Your task to perform on an android device: Go to CNN.com Image 0: 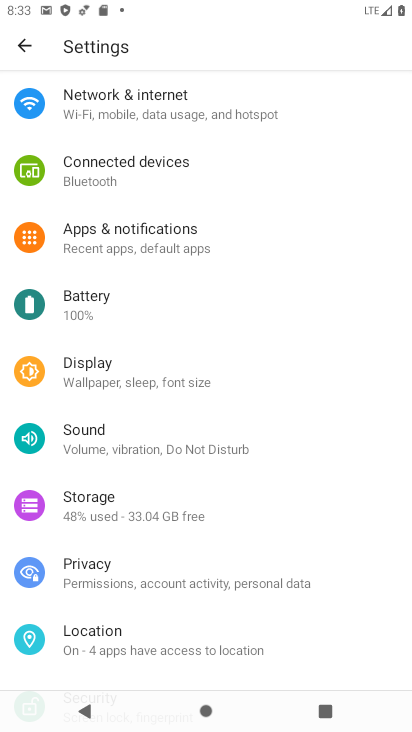
Step 0: press home button
Your task to perform on an android device: Go to CNN.com Image 1: 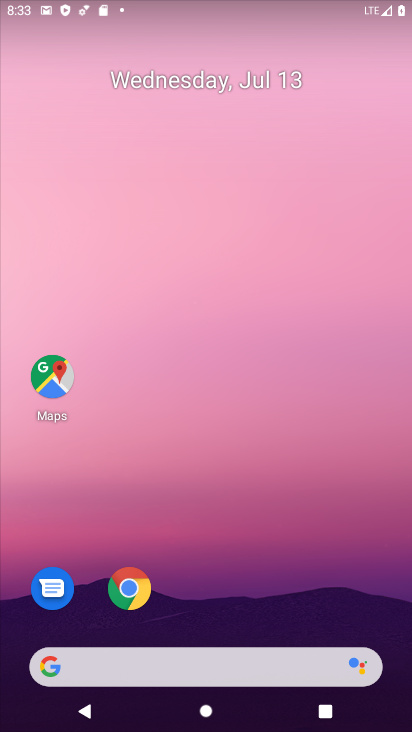
Step 1: click (142, 583)
Your task to perform on an android device: Go to CNN.com Image 2: 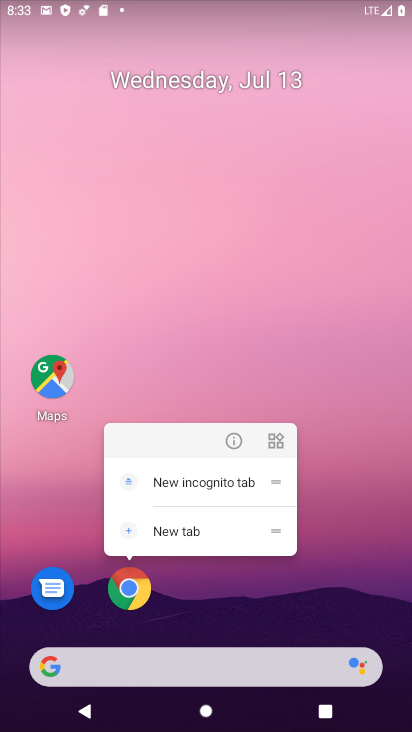
Step 2: click (142, 583)
Your task to perform on an android device: Go to CNN.com Image 3: 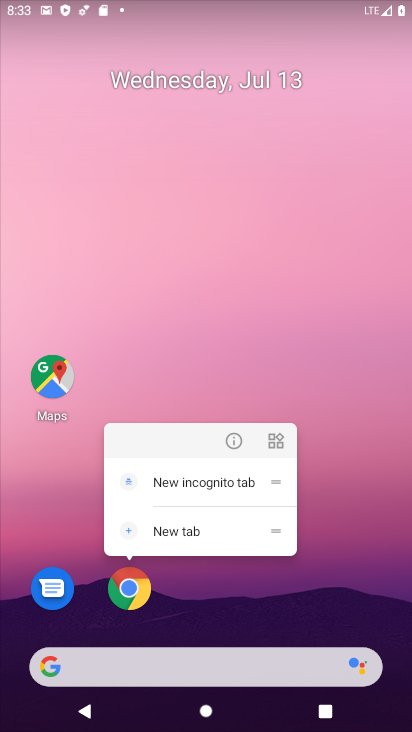
Step 3: click (136, 581)
Your task to perform on an android device: Go to CNN.com Image 4: 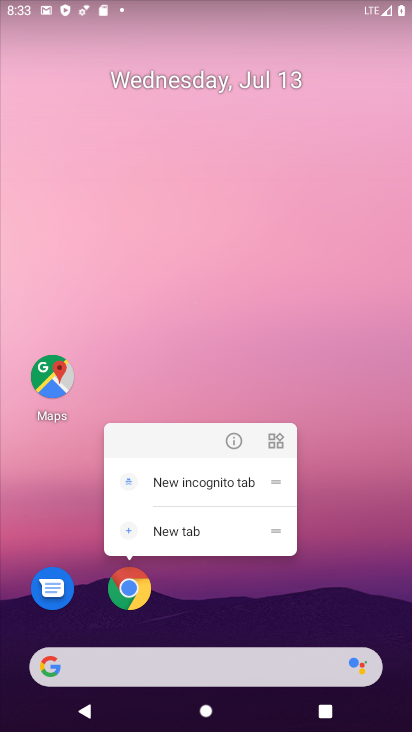
Step 4: click (129, 586)
Your task to perform on an android device: Go to CNN.com Image 5: 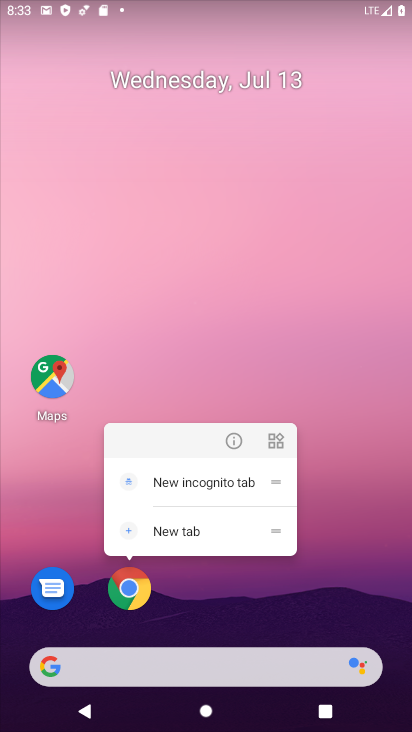
Step 5: click (129, 586)
Your task to perform on an android device: Go to CNN.com Image 6: 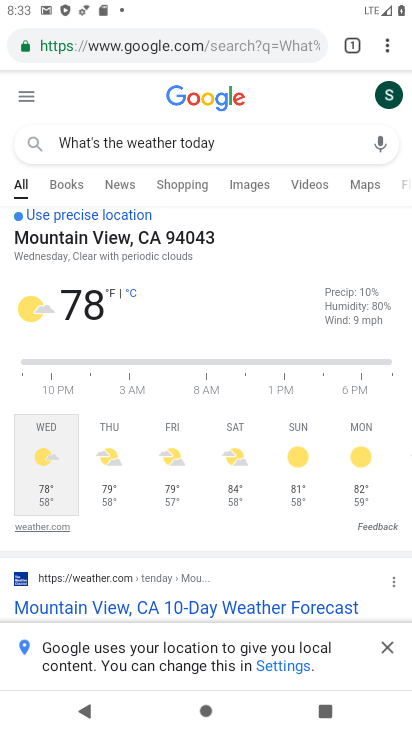
Step 6: click (397, 43)
Your task to perform on an android device: Go to CNN.com Image 7: 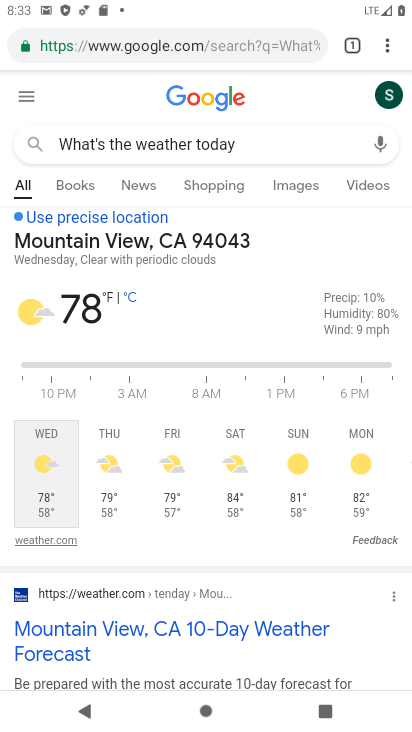
Step 7: click (383, 39)
Your task to perform on an android device: Go to CNN.com Image 8: 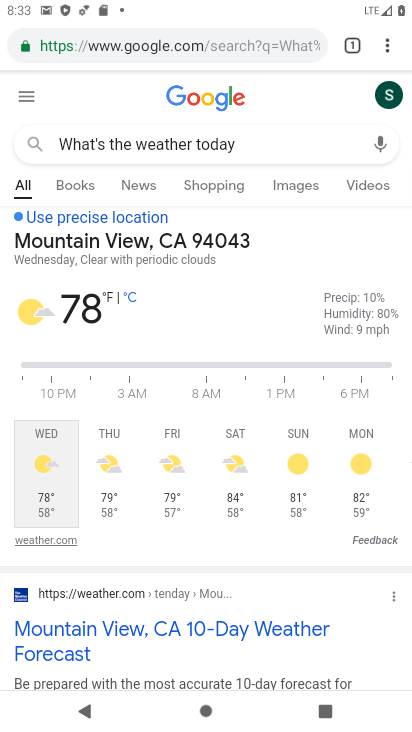
Step 8: click (383, 39)
Your task to perform on an android device: Go to CNN.com Image 9: 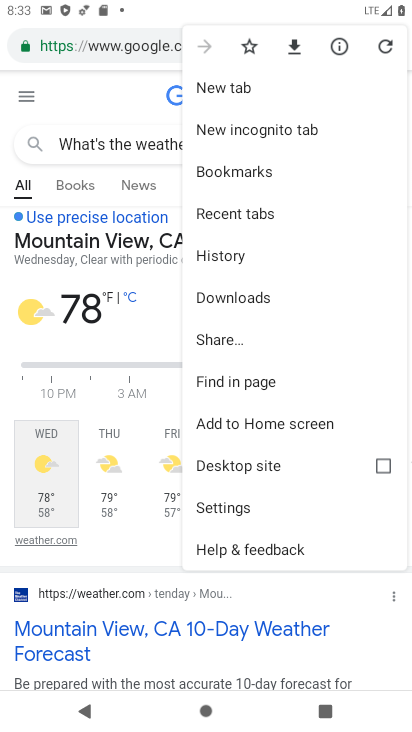
Step 9: click (234, 80)
Your task to perform on an android device: Go to CNN.com Image 10: 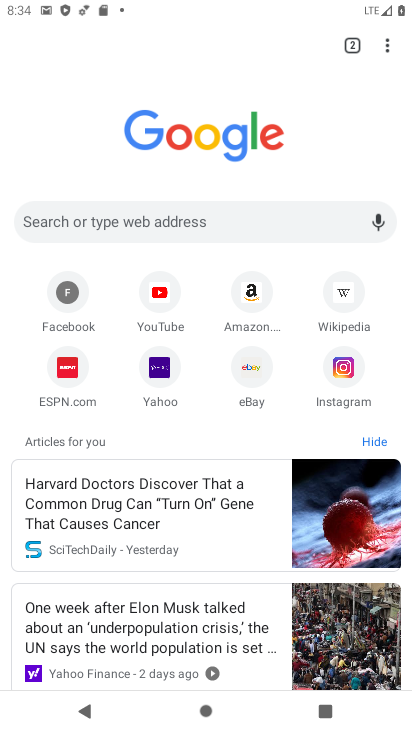
Step 10: click (249, 204)
Your task to perform on an android device: Go to CNN.com Image 11: 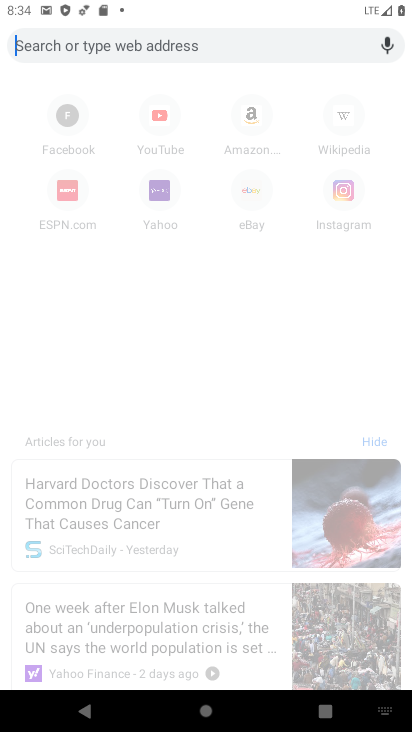
Step 11: type "CNN.com "
Your task to perform on an android device: Go to CNN.com Image 12: 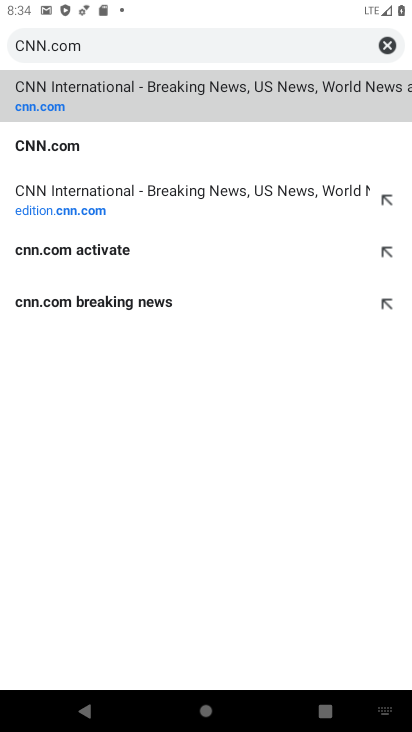
Step 12: click (205, 90)
Your task to perform on an android device: Go to CNN.com Image 13: 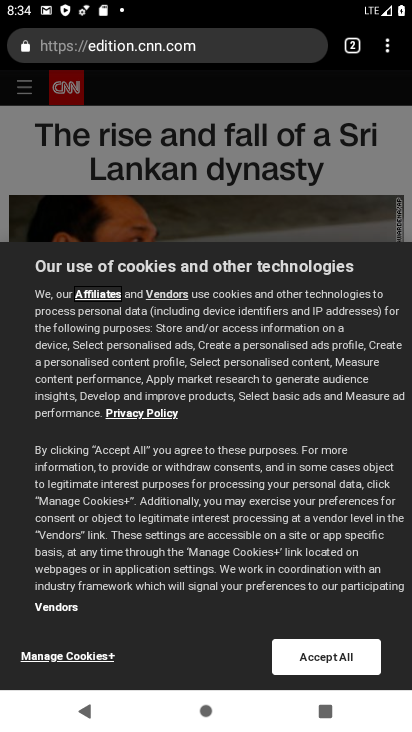
Step 13: task complete